Your task to perform on an android device: open wifi settings Image 0: 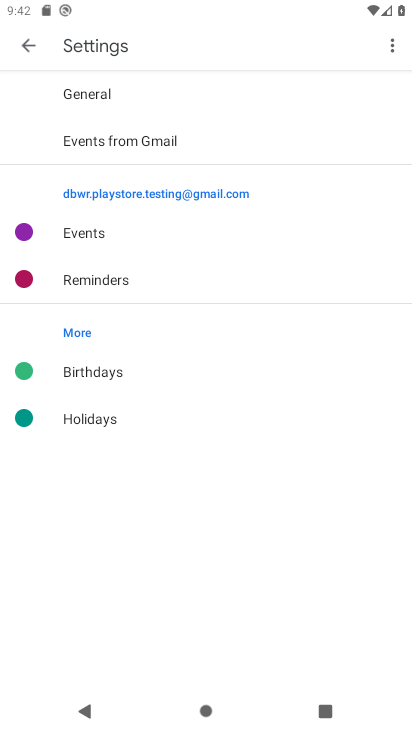
Step 0: press home button
Your task to perform on an android device: open wifi settings Image 1: 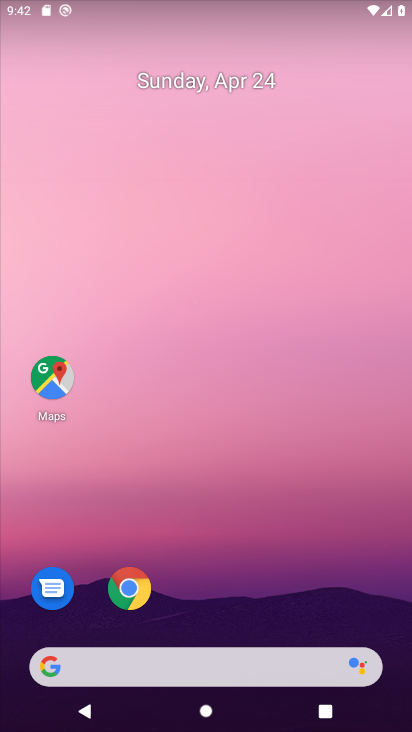
Step 1: drag from (251, 573) to (250, 39)
Your task to perform on an android device: open wifi settings Image 2: 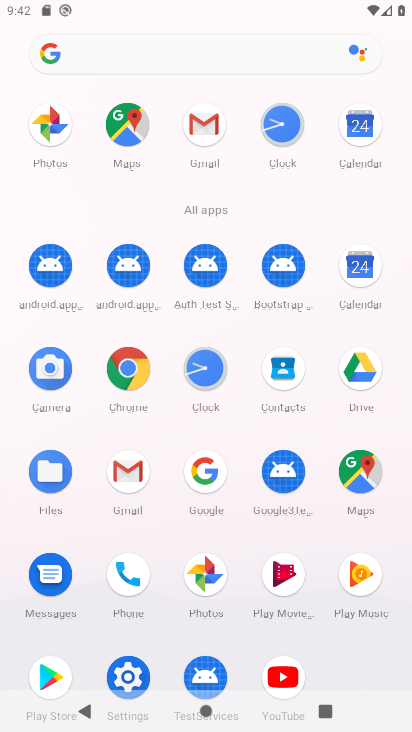
Step 2: click (139, 665)
Your task to perform on an android device: open wifi settings Image 3: 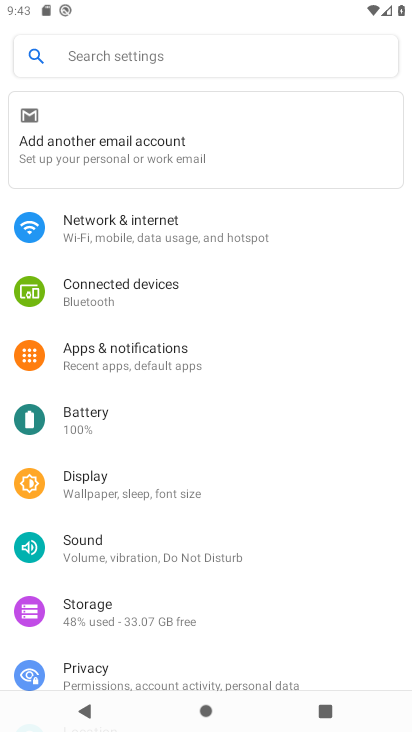
Step 3: click (174, 233)
Your task to perform on an android device: open wifi settings Image 4: 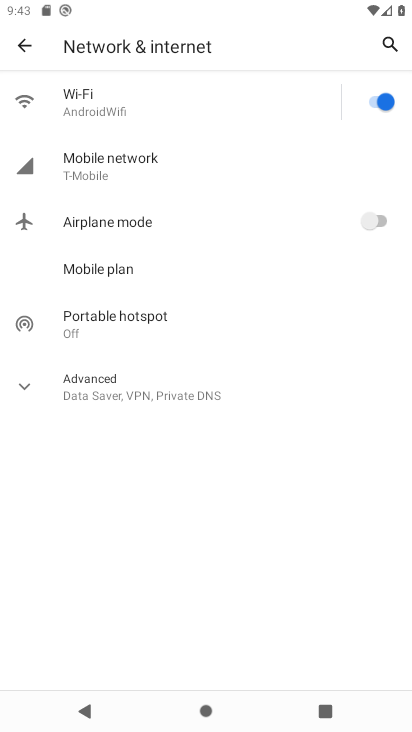
Step 4: click (96, 96)
Your task to perform on an android device: open wifi settings Image 5: 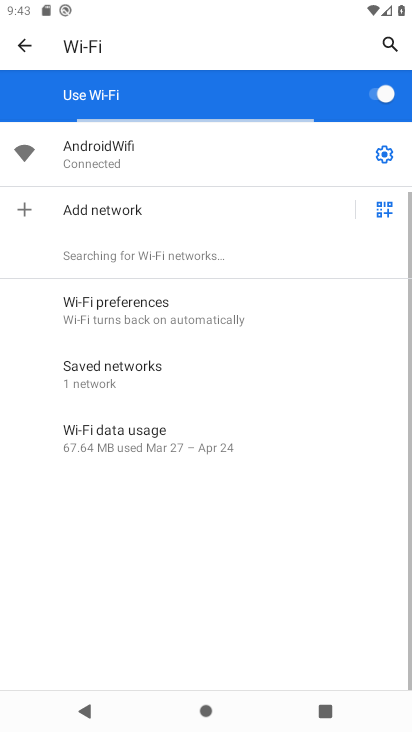
Step 5: task complete